Your task to perform on an android device: search for starred emails in the gmail app Image 0: 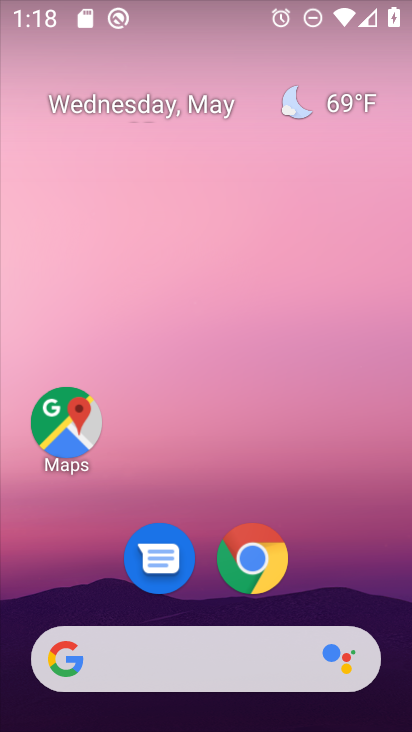
Step 0: drag from (384, 634) to (294, 167)
Your task to perform on an android device: search for starred emails in the gmail app Image 1: 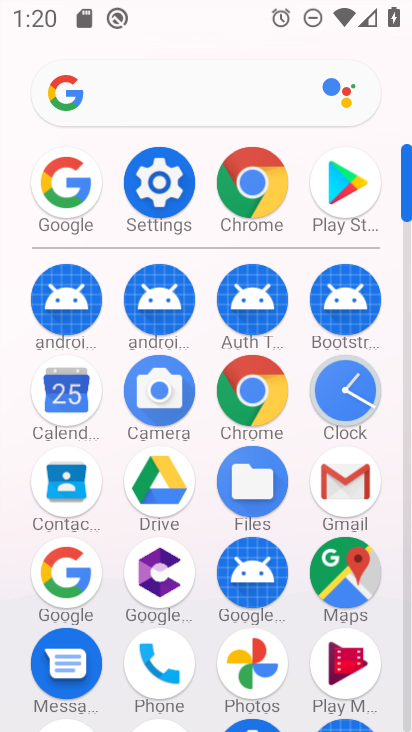
Step 1: click (354, 463)
Your task to perform on an android device: search for starred emails in the gmail app Image 2: 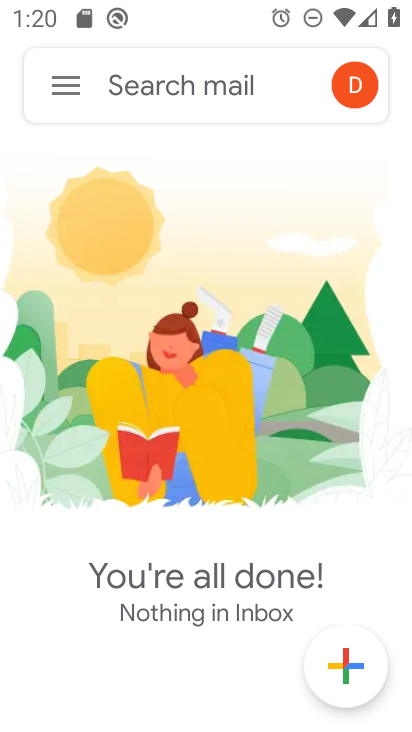
Step 2: click (47, 97)
Your task to perform on an android device: search for starred emails in the gmail app Image 3: 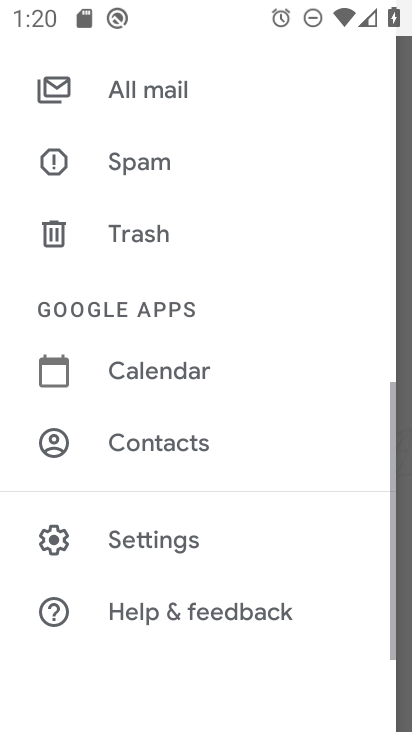
Step 3: drag from (91, 133) to (123, 662)
Your task to perform on an android device: search for starred emails in the gmail app Image 4: 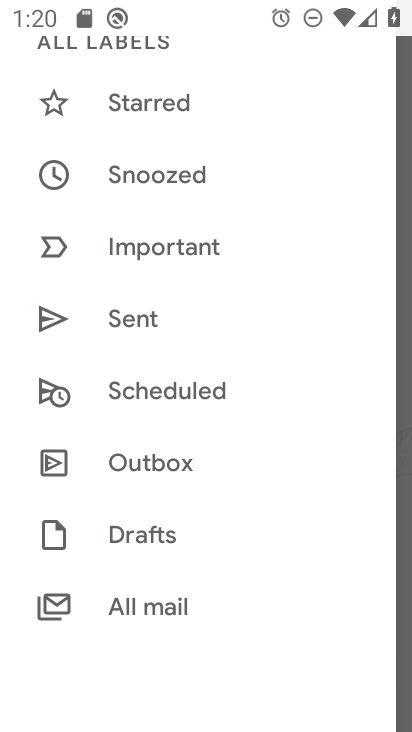
Step 4: click (144, 102)
Your task to perform on an android device: search for starred emails in the gmail app Image 5: 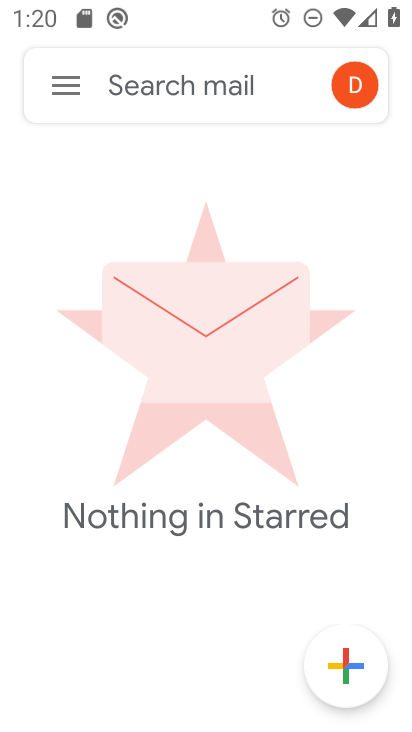
Step 5: task complete